Your task to perform on an android device: check out phone information Image 0: 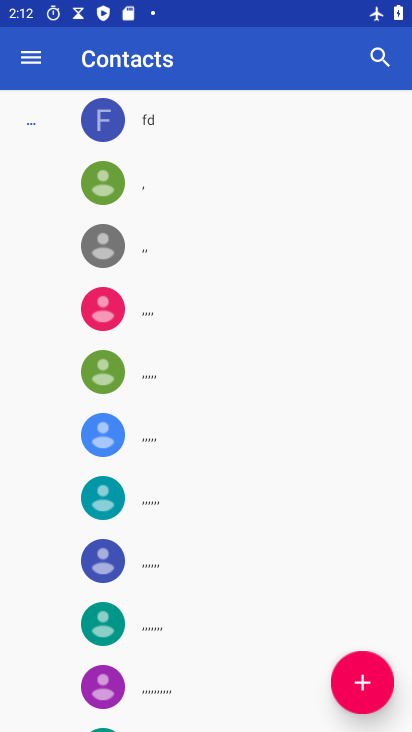
Step 0: press home button
Your task to perform on an android device: check out phone information Image 1: 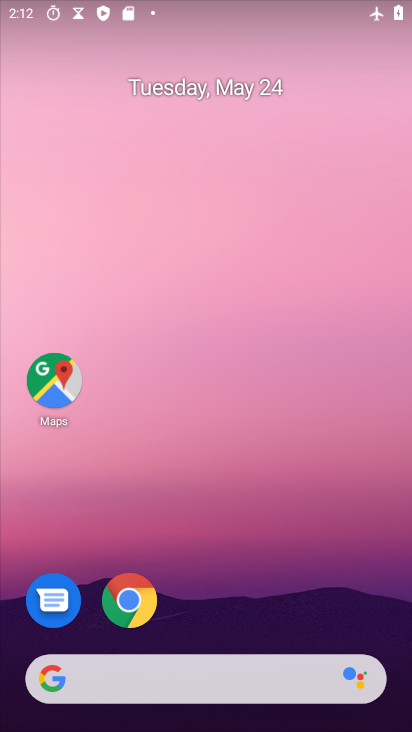
Step 1: drag from (288, 584) to (222, 30)
Your task to perform on an android device: check out phone information Image 2: 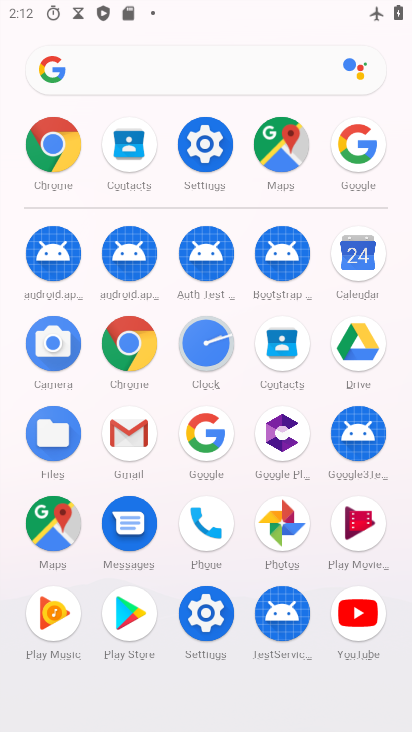
Step 2: click (202, 155)
Your task to perform on an android device: check out phone information Image 3: 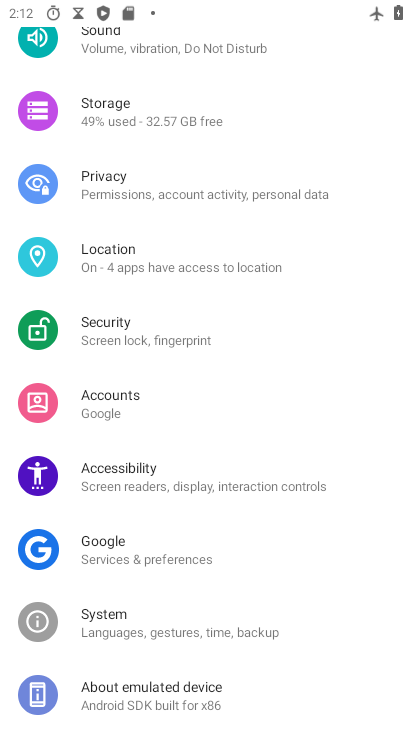
Step 3: click (232, 699)
Your task to perform on an android device: check out phone information Image 4: 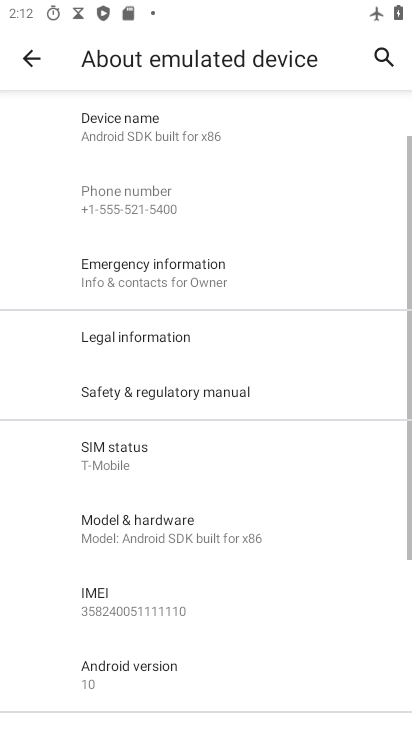
Step 4: task complete